Your task to perform on an android device: What's on my calendar tomorrow? Image 0: 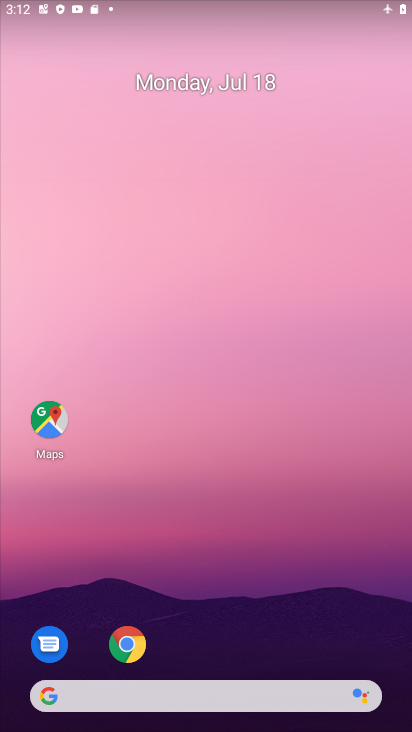
Step 0: drag from (366, 642) to (336, 15)
Your task to perform on an android device: What's on my calendar tomorrow? Image 1: 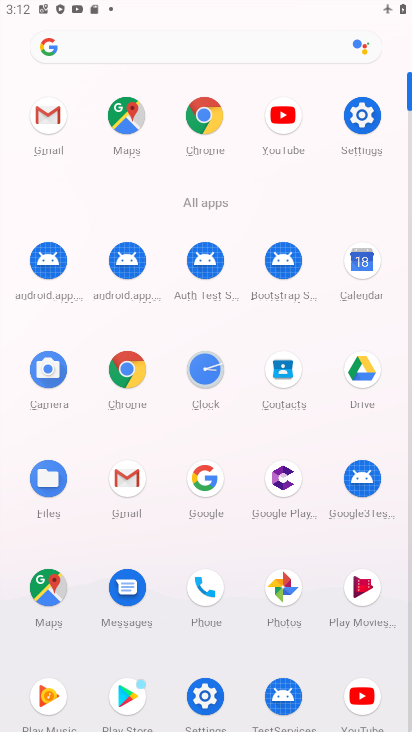
Step 1: click (363, 260)
Your task to perform on an android device: What's on my calendar tomorrow? Image 2: 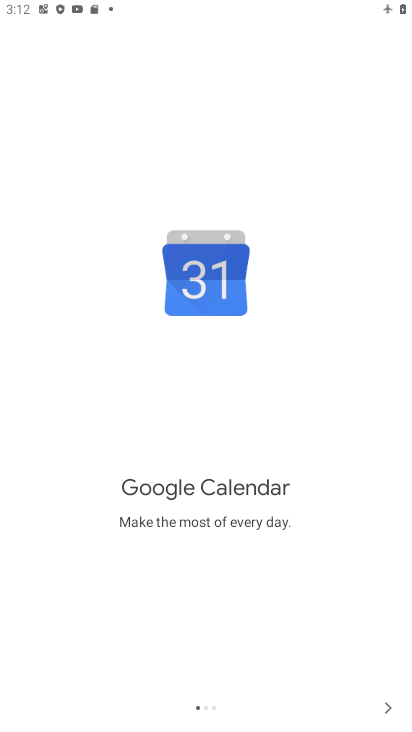
Step 2: click (387, 706)
Your task to perform on an android device: What's on my calendar tomorrow? Image 3: 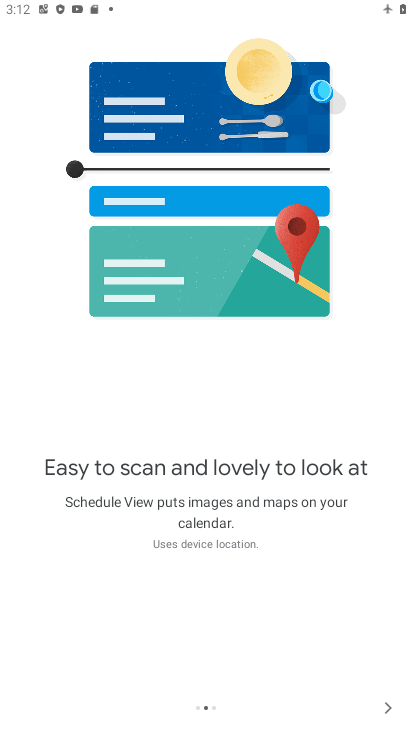
Step 3: click (387, 706)
Your task to perform on an android device: What's on my calendar tomorrow? Image 4: 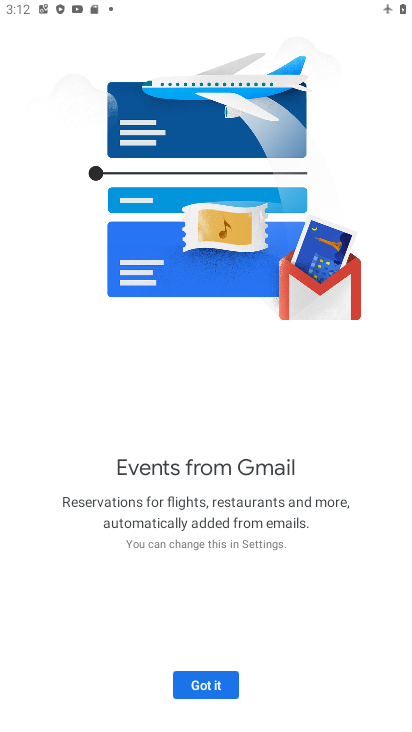
Step 4: click (202, 684)
Your task to perform on an android device: What's on my calendar tomorrow? Image 5: 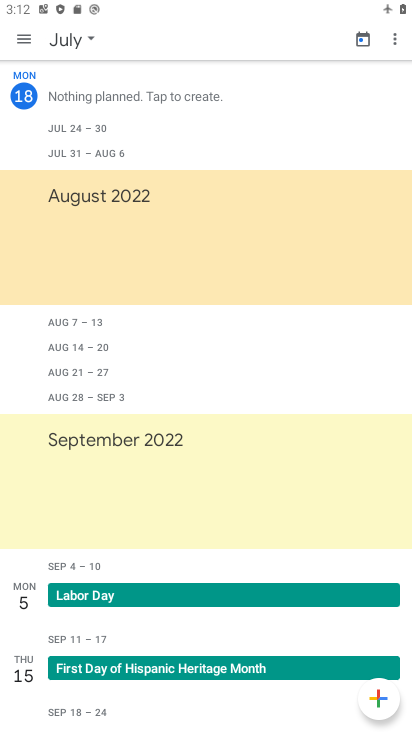
Step 5: click (17, 38)
Your task to perform on an android device: What's on my calendar tomorrow? Image 6: 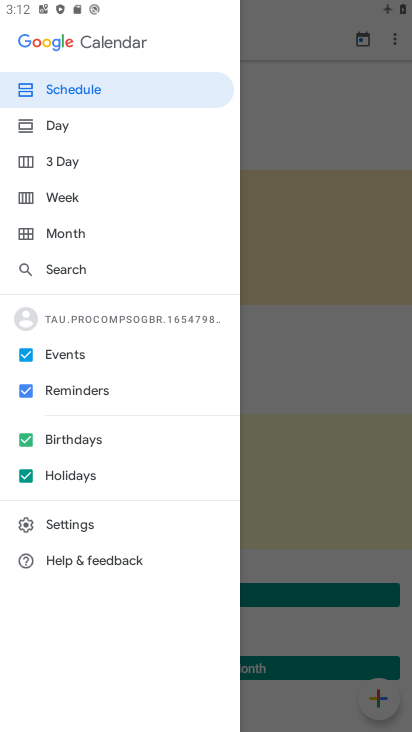
Step 6: click (50, 125)
Your task to perform on an android device: What's on my calendar tomorrow? Image 7: 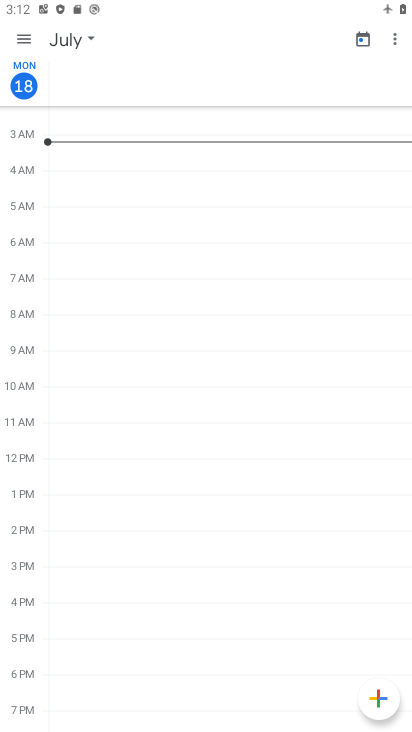
Step 7: click (86, 41)
Your task to perform on an android device: What's on my calendar tomorrow? Image 8: 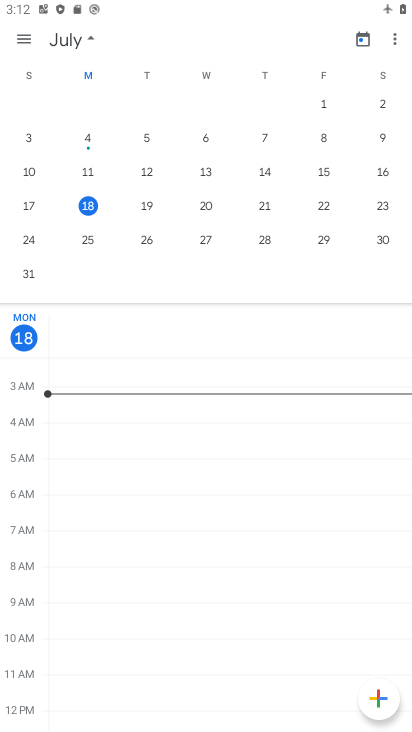
Step 8: click (148, 202)
Your task to perform on an android device: What's on my calendar tomorrow? Image 9: 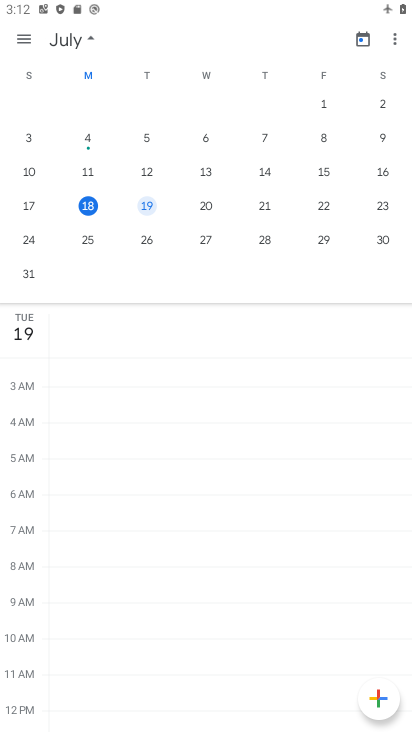
Step 9: task complete